Your task to perform on an android device: Open Google Chrome and open the bookmarks view Image 0: 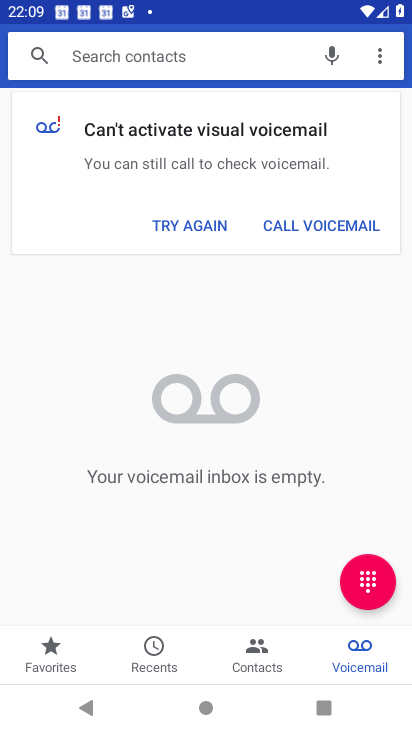
Step 0: press home button
Your task to perform on an android device: Open Google Chrome and open the bookmarks view Image 1: 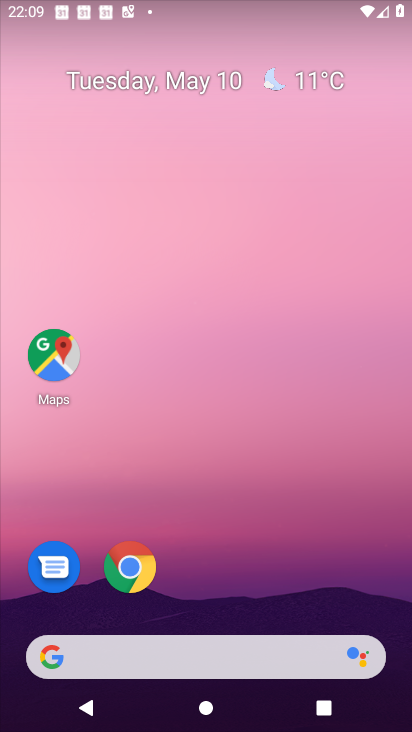
Step 1: click (115, 558)
Your task to perform on an android device: Open Google Chrome and open the bookmarks view Image 2: 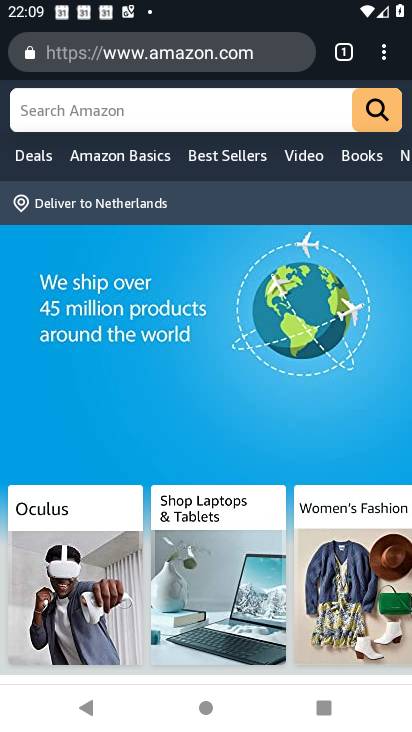
Step 2: click (375, 50)
Your task to perform on an android device: Open Google Chrome and open the bookmarks view Image 3: 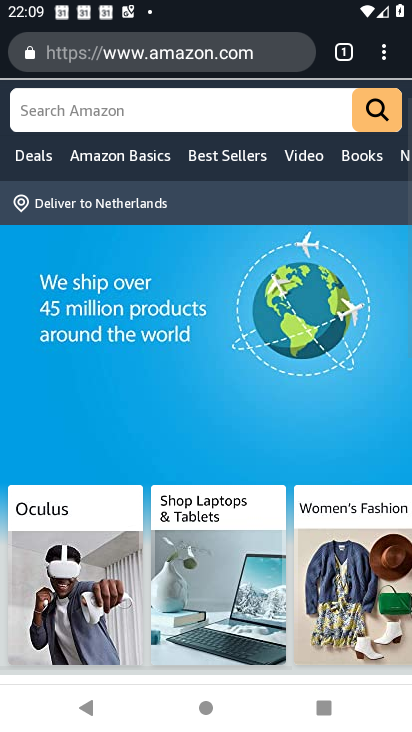
Step 3: click (385, 58)
Your task to perform on an android device: Open Google Chrome and open the bookmarks view Image 4: 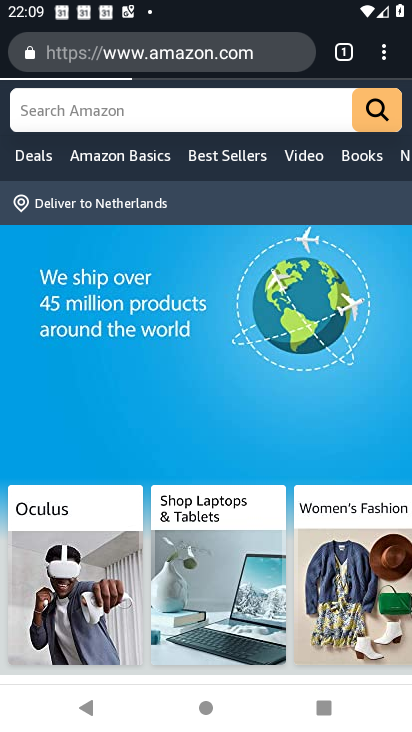
Step 4: click (385, 57)
Your task to perform on an android device: Open Google Chrome and open the bookmarks view Image 5: 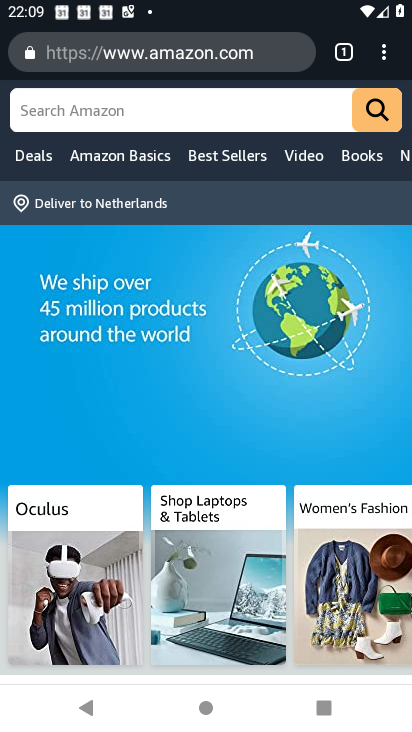
Step 5: click (385, 54)
Your task to perform on an android device: Open Google Chrome and open the bookmarks view Image 6: 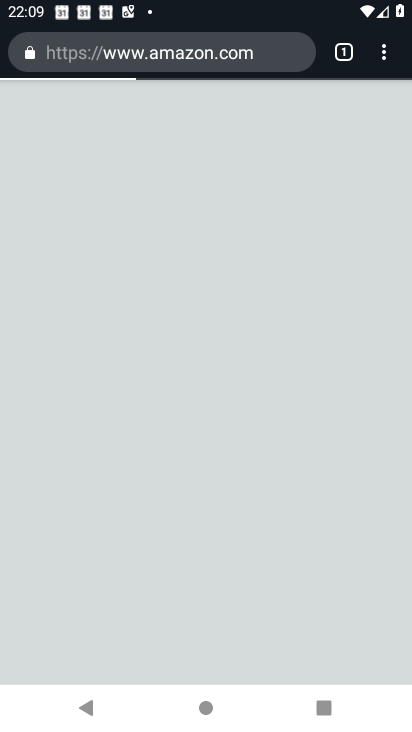
Step 6: click (385, 54)
Your task to perform on an android device: Open Google Chrome and open the bookmarks view Image 7: 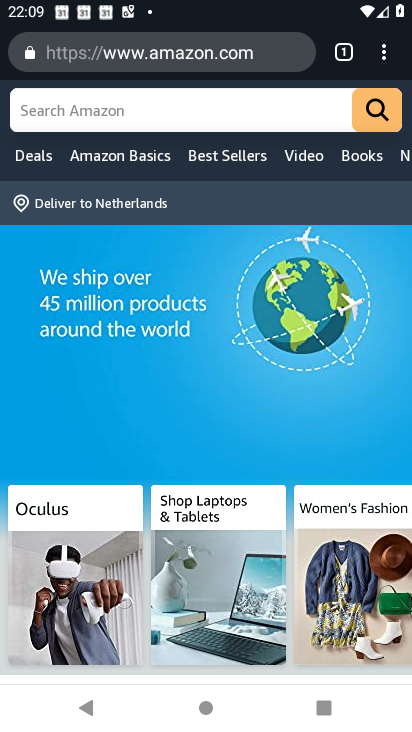
Step 7: click (384, 58)
Your task to perform on an android device: Open Google Chrome and open the bookmarks view Image 8: 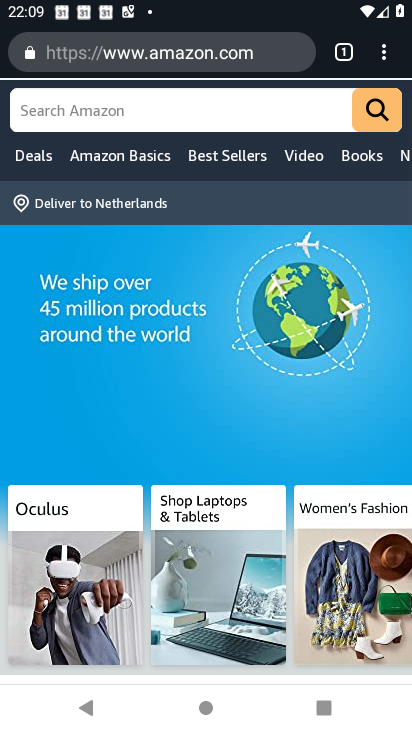
Step 8: click (384, 58)
Your task to perform on an android device: Open Google Chrome and open the bookmarks view Image 9: 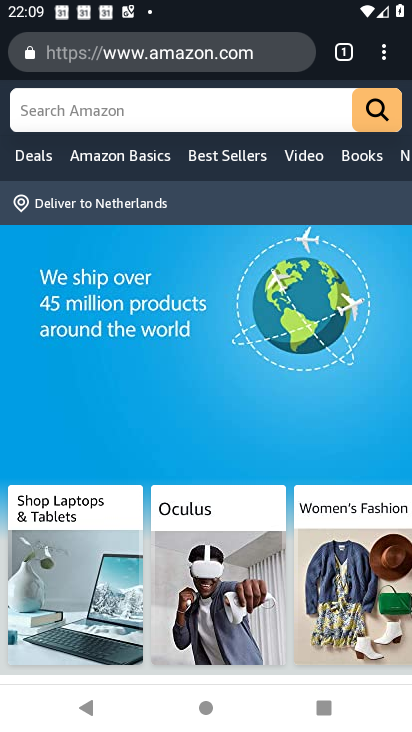
Step 9: click (384, 58)
Your task to perform on an android device: Open Google Chrome and open the bookmarks view Image 10: 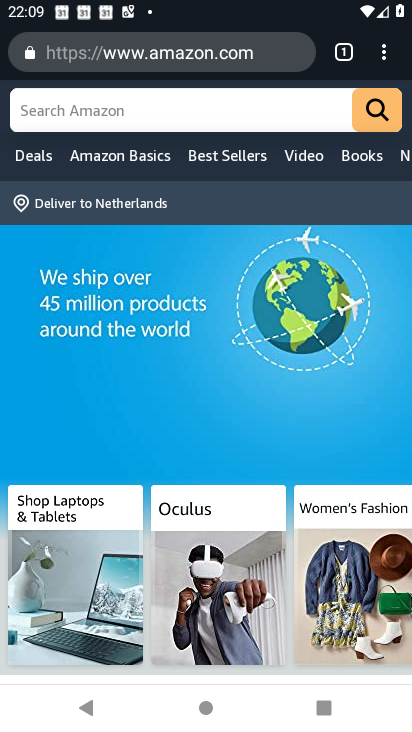
Step 10: click (384, 58)
Your task to perform on an android device: Open Google Chrome and open the bookmarks view Image 11: 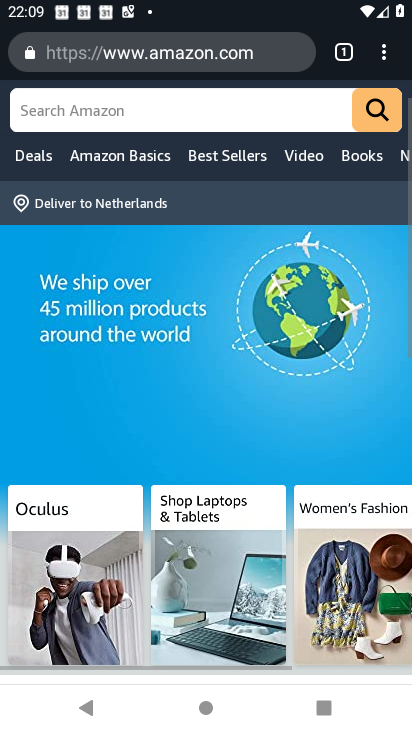
Step 11: click (384, 47)
Your task to perform on an android device: Open Google Chrome and open the bookmarks view Image 12: 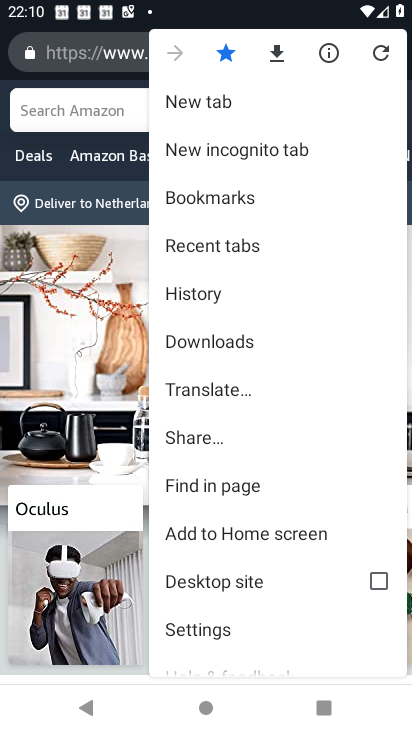
Step 12: click (256, 195)
Your task to perform on an android device: Open Google Chrome and open the bookmarks view Image 13: 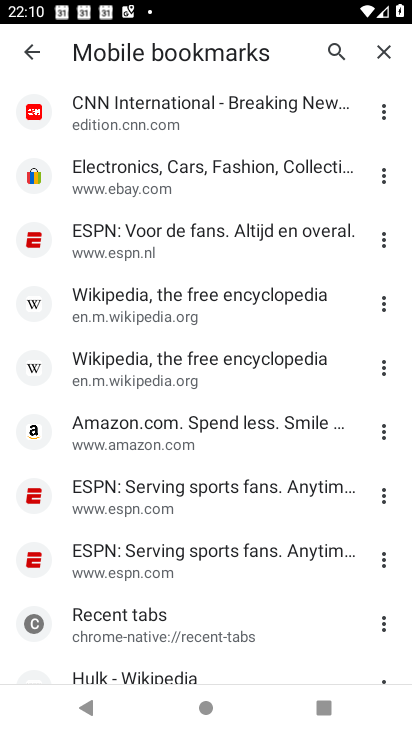
Step 13: task complete